Your task to perform on an android device: open app "Calculator" (install if not already installed) Image 0: 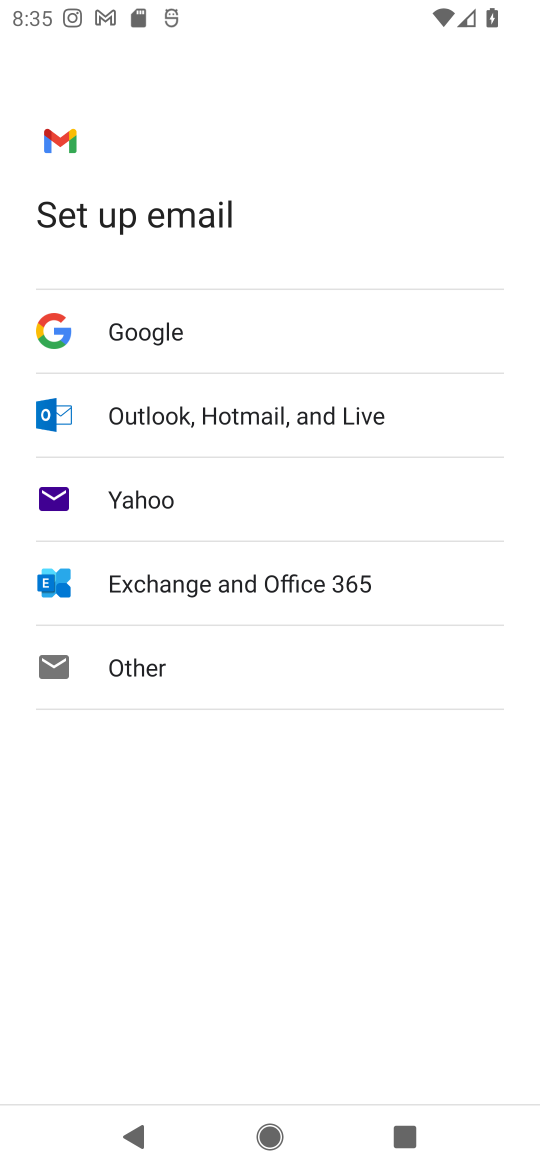
Step 0: press home button
Your task to perform on an android device: open app "Calculator" (install if not already installed) Image 1: 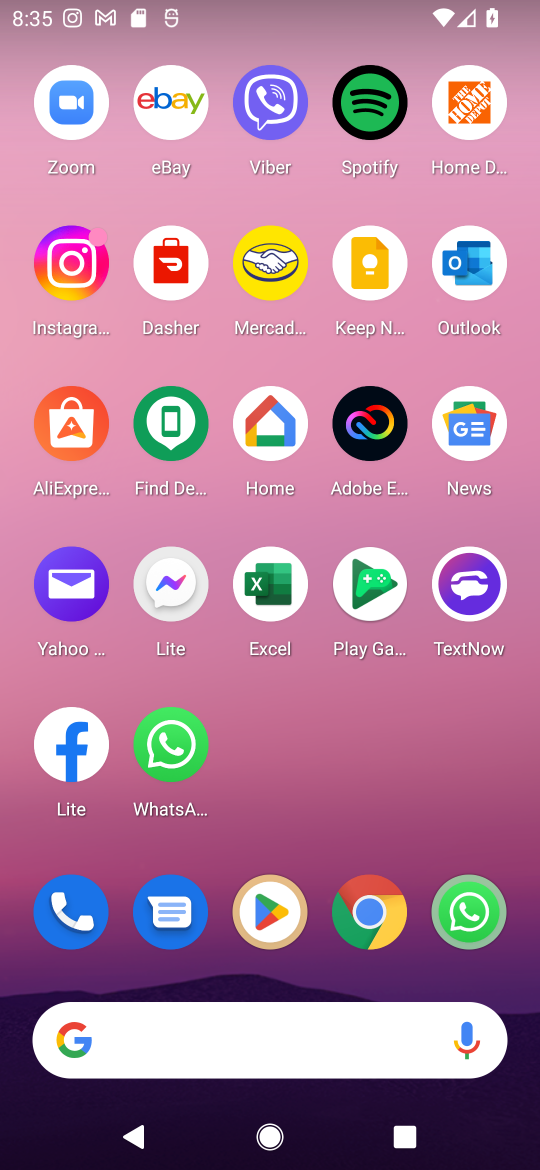
Step 1: click (277, 915)
Your task to perform on an android device: open app "Calculator" (install if not already installed) Image 2: 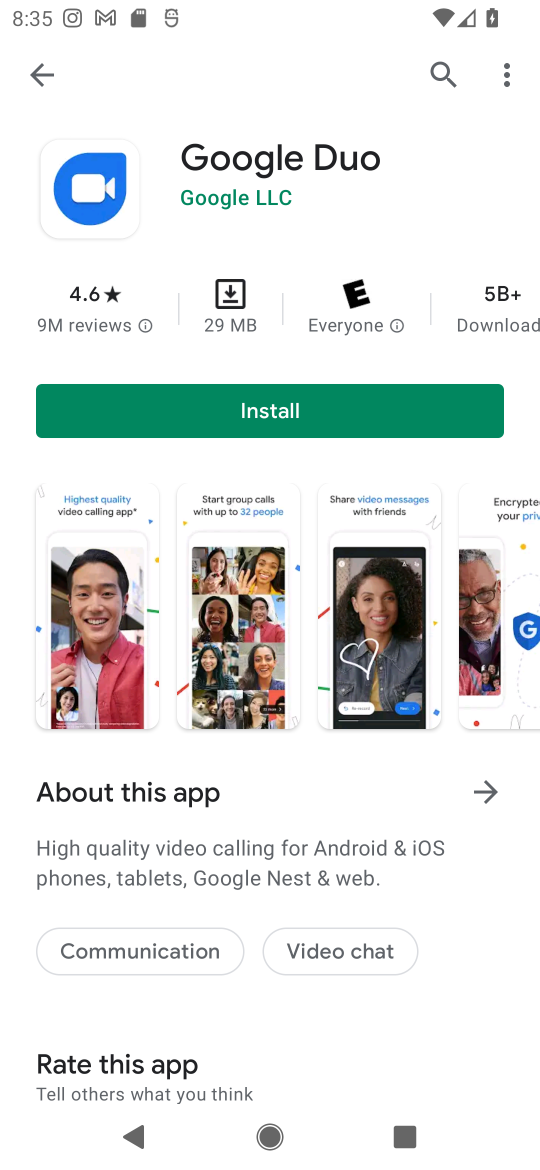
Step 2: click (442, 66)
Your task to perform on an android device: open app "Calculator" (install if not already installed) Image 3: 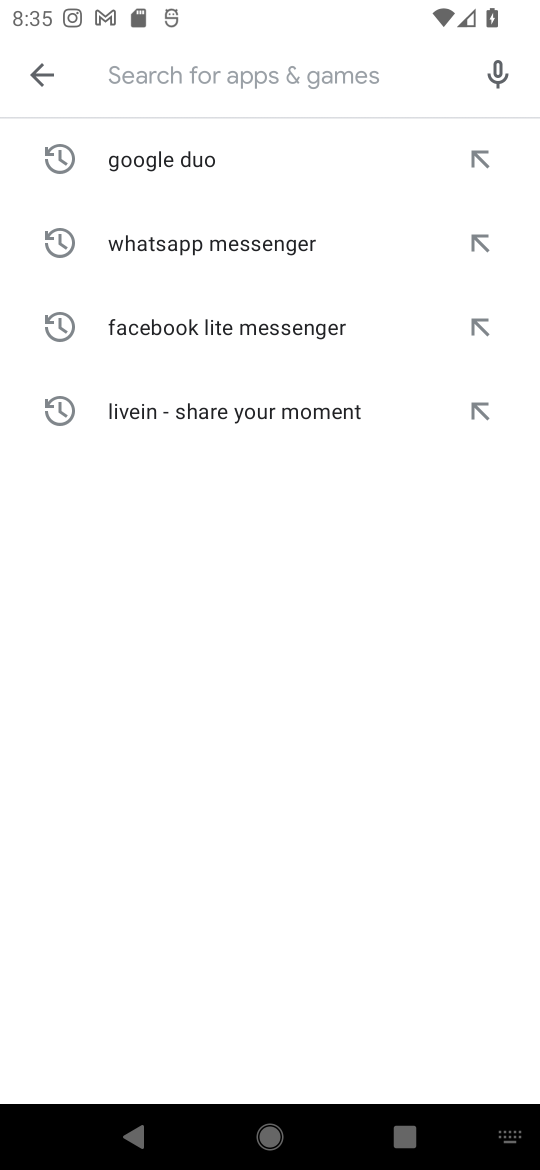
Step 3: type "calculator"
Your task to perform on an android device: open app "Calculator" (install if not already installed) Image 4: 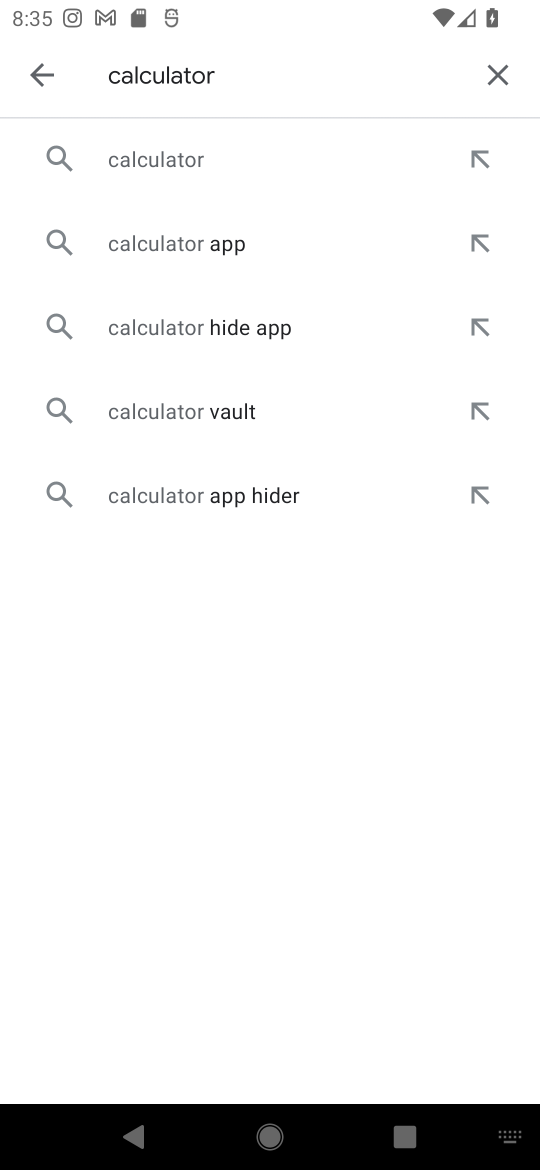
Step 4: click (130, 159)
Your task to perform on an android device: open app "Calculator" (install if not already installed) Image 5: 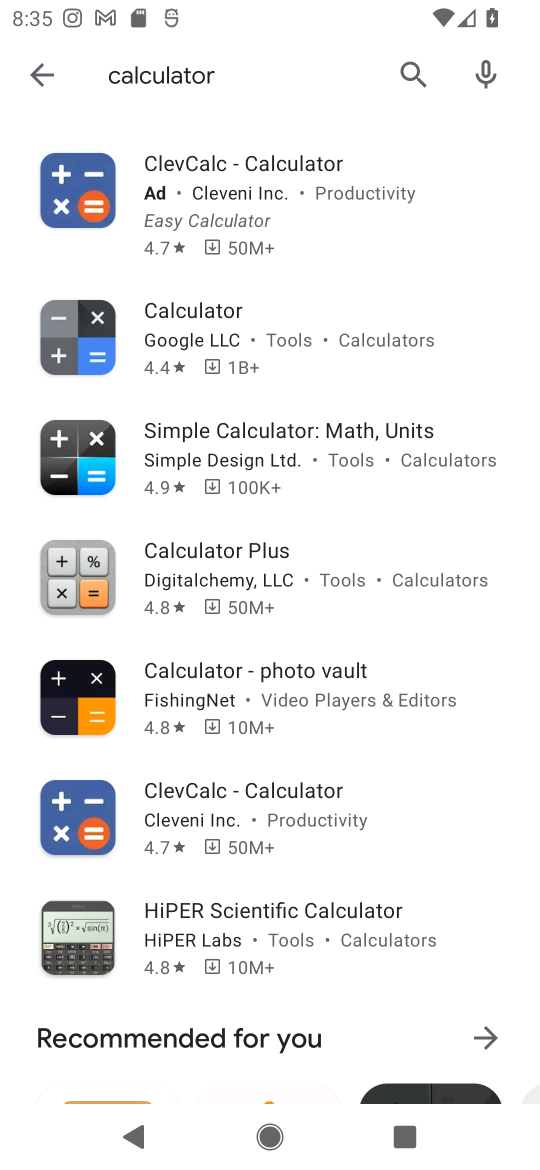
Step 5: click (185, 331)
Your task to perform on an android device: open app "Calculator" (install if not already installed) Image 6: 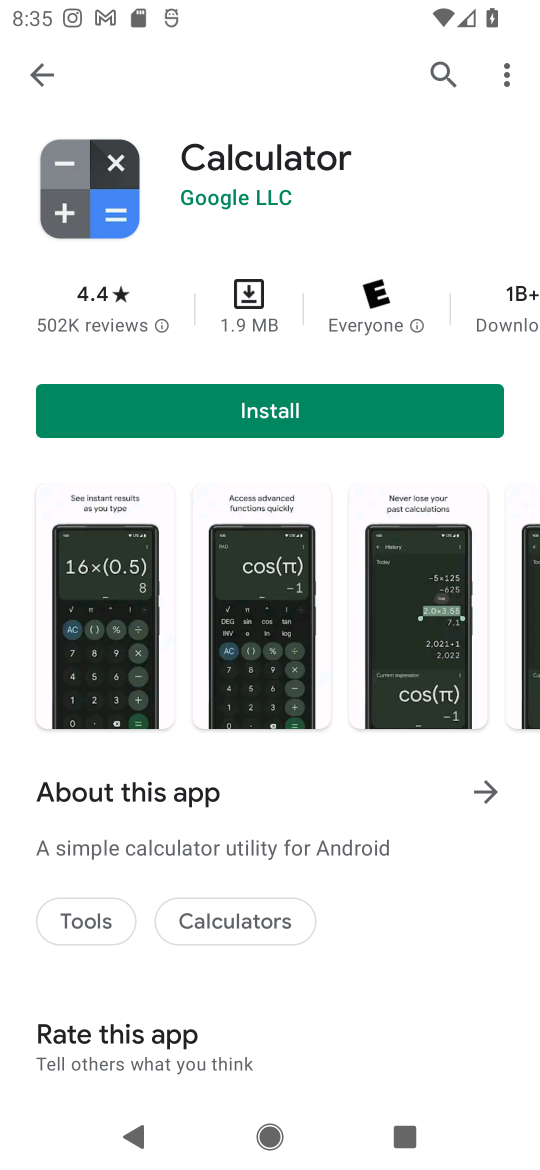
Step 6: click (250, 409)
Your task to perform on an android device: open app "Calculator" (install if not already installed) Image 7: 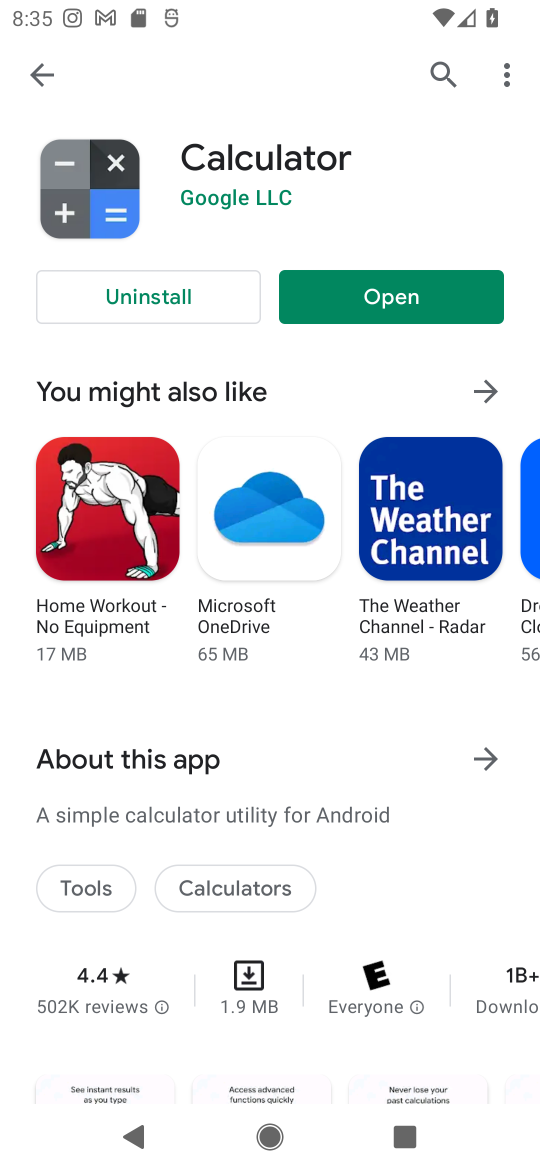
Step 7: click (411, 308)
Your task to perform on an android device: open app "Calculator" (install if not already installed) Image 8: 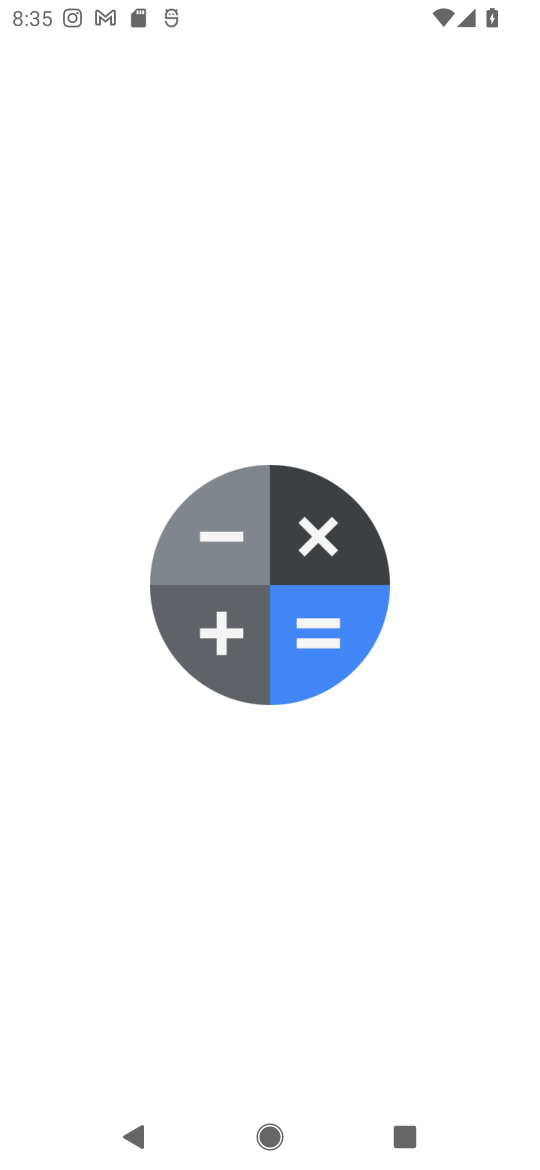
Step 8: task complete